Your task to perform on an android device: Show me popular videos on Youtube Image 0: 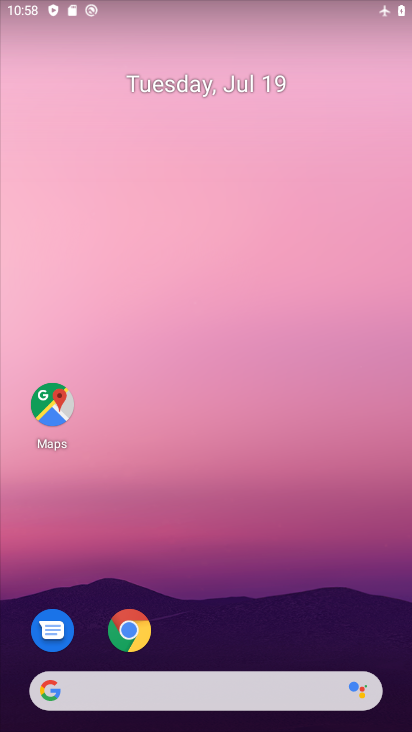
Step 0: drag from (259, 649) to (233, 89)
Your task to perform on an android device: Show me popular videos on Youtube Image 1: 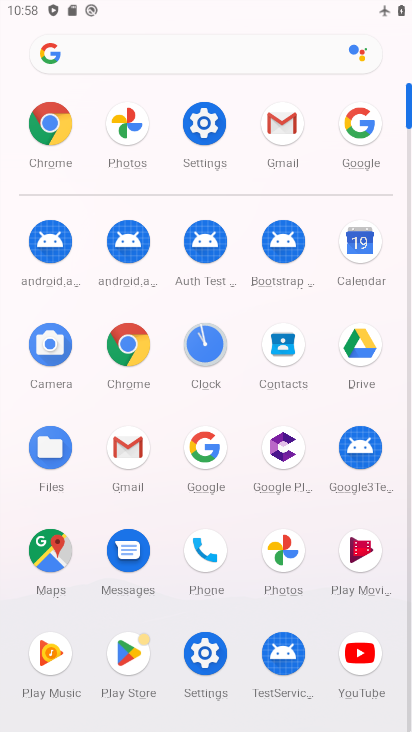
Step 1: click (364, 641)
Your task to perform on an android device: Show me popular videos on Youtube Image 2: 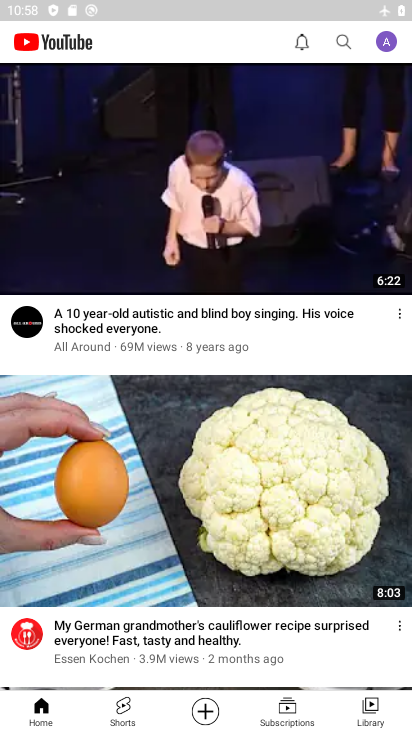
Step 2: task complete